Your task to perform on an android device: refresh tabs in the chrome app Image 0: 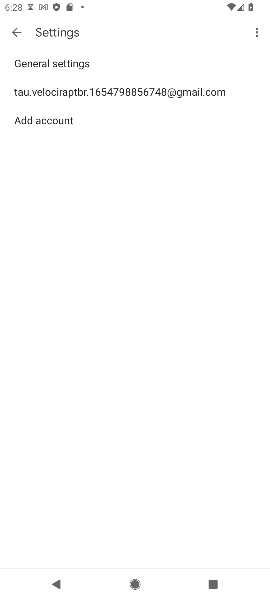
Step 0: press home button
Your task to perform on an android device: refresh tabs in the chrome app Image 1: 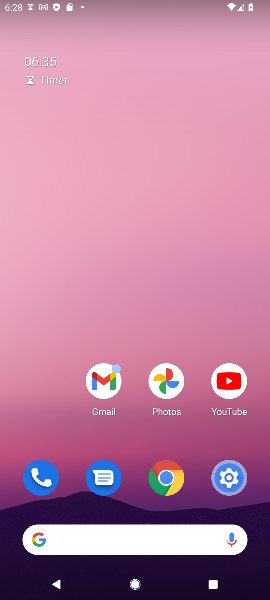
Step 1: click (179, 467)
Your task to perform on an android device: refresh tabs in the chrome app Image 2: 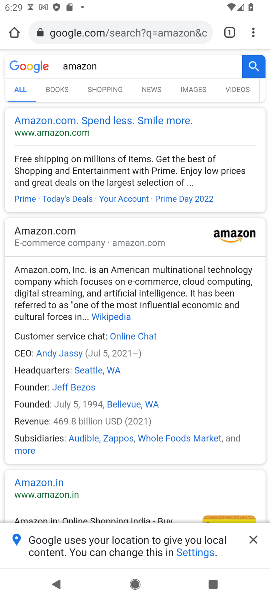
Step 2: click (253, 38)
Your task to perform on an android device: refresh tabs in the chrome app Image 3: 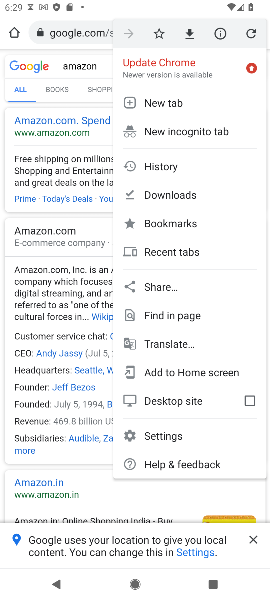
Step 3: click (251, 35)
Your task to perform on an android device: refresh tabs in the chrome app Image 4: 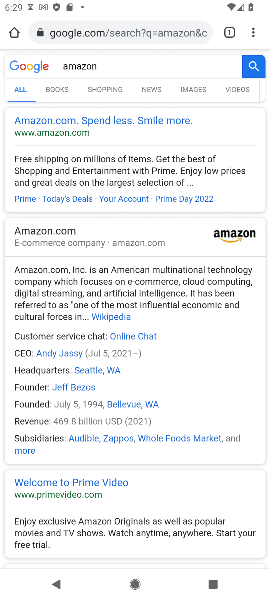
Step 4: task complete